Your task to perform on an android device: Go to Yahoo.com Image 0: 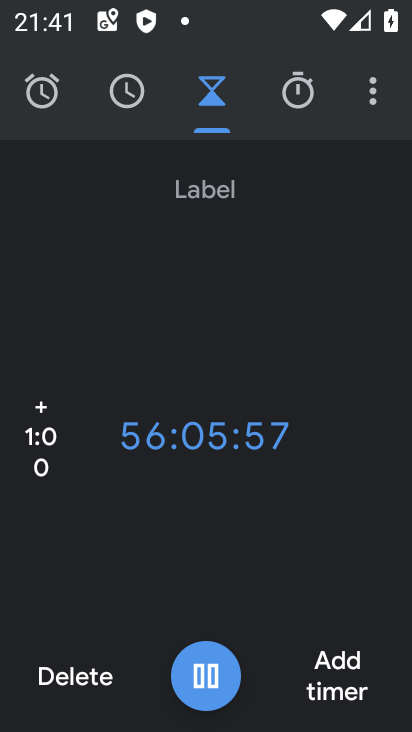
Step 0: press home button
Your task to perform on an android device: Go to Yahoo.com Image 1: 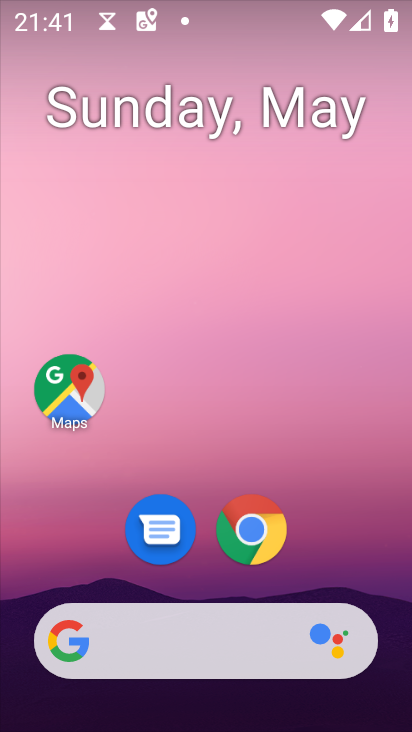
Step 1: click (227, 528)
Your task to perform on an android device: Go to Yahoo.com Image 2: 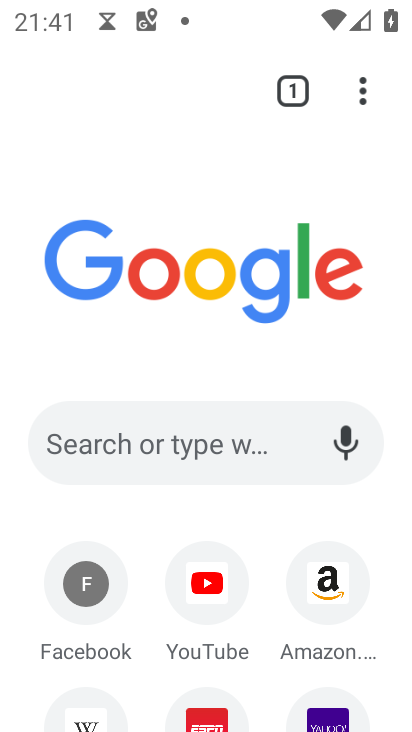
Step 2: click (133, 444)
Your task to perform on an android device: Go to Yahoo.com Image 3: 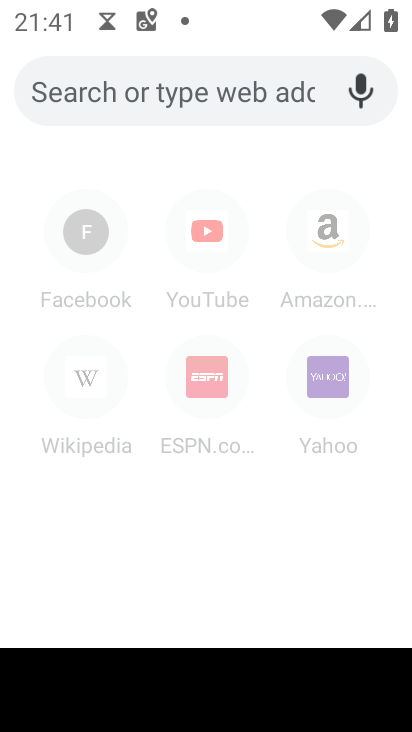
Step 3: type "yahoo.com"
Your task to perform on an android device: Go to Yahoo.com Image 4: 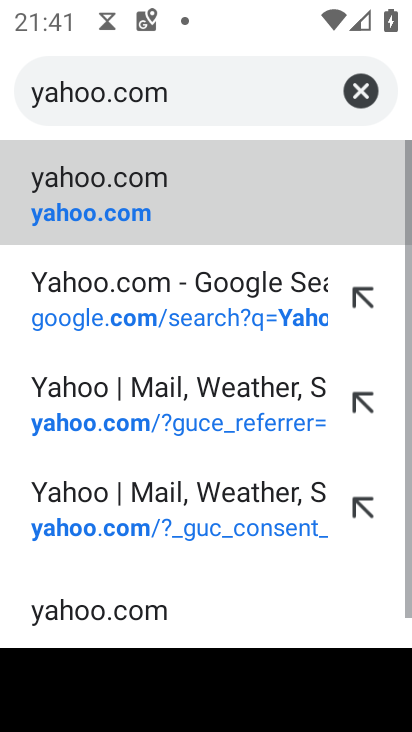
Step 4: click (101, 203)
Your task to perform on an android device: Go to Yahoo.com Image 5: 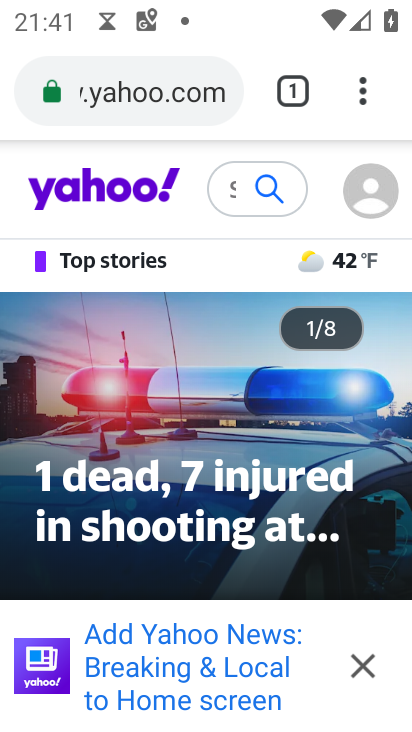
Step 5: task complete